Your task to perform on an android device: Go to settings Image 0: 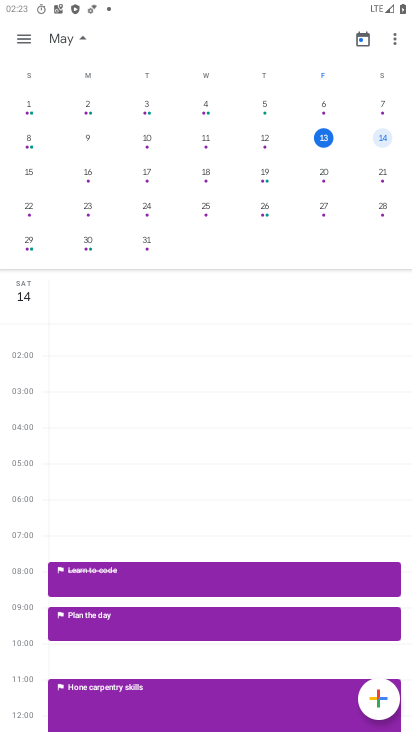
Step 0: press home button
Your task to perform on an android device: Go to settings Image 1: 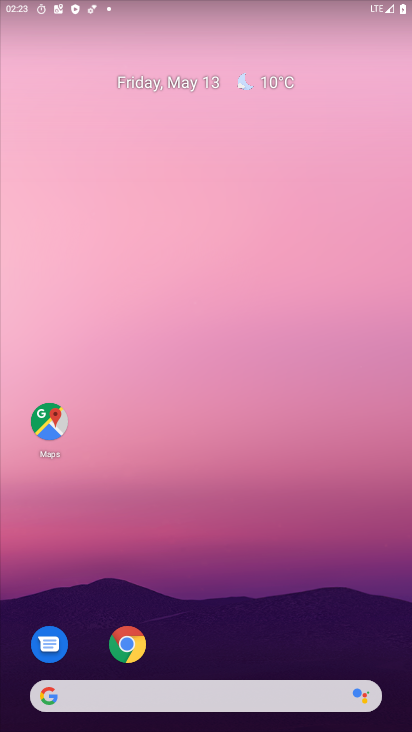
Step 1: drag from (296, 668) to (394, 4)
Your task to perform on an android device: Go to settings Image 2: 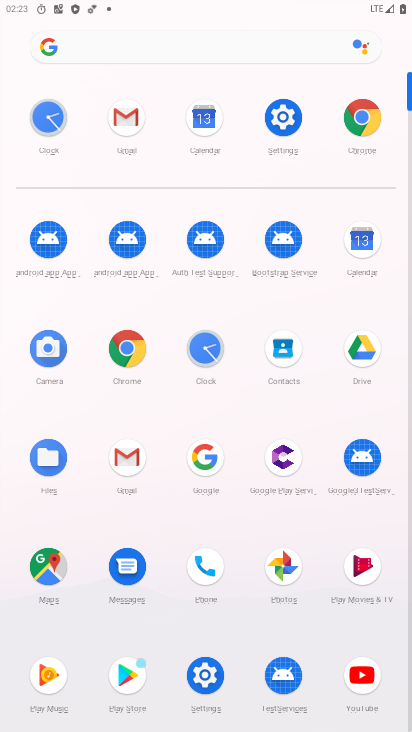
Step 2: click (272, 126)
Your task to perform on an android device: Go to settings Image 3: 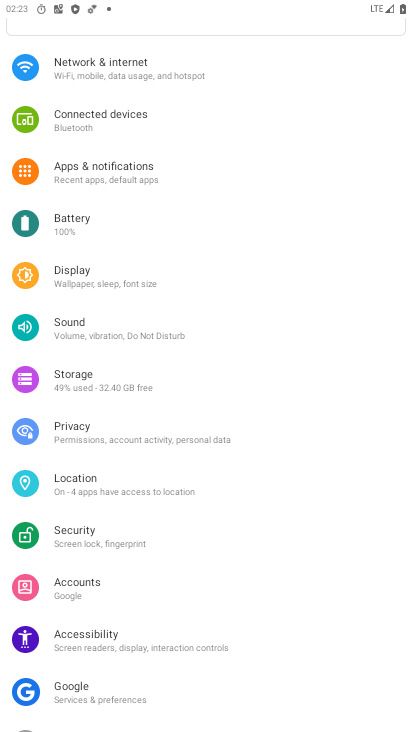
Step 3: task complete